Your task to perform on an android device: visit the assistant section in the google photos Image 0: 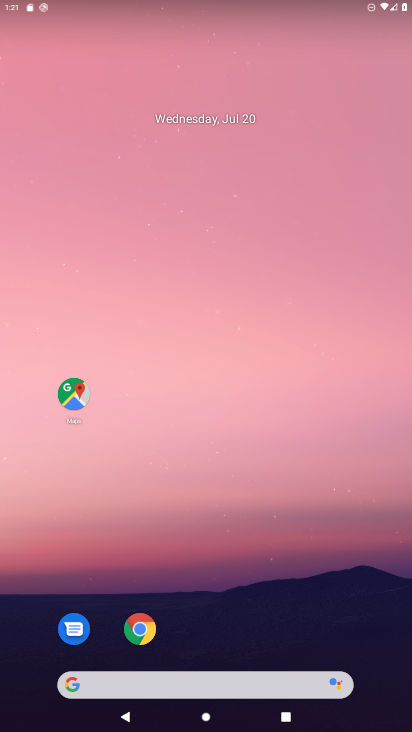
Step 0: drag from (203, 577) to (150, 189)
Your task to perform on an android device: visit the assistant section in the google photos Image 1: 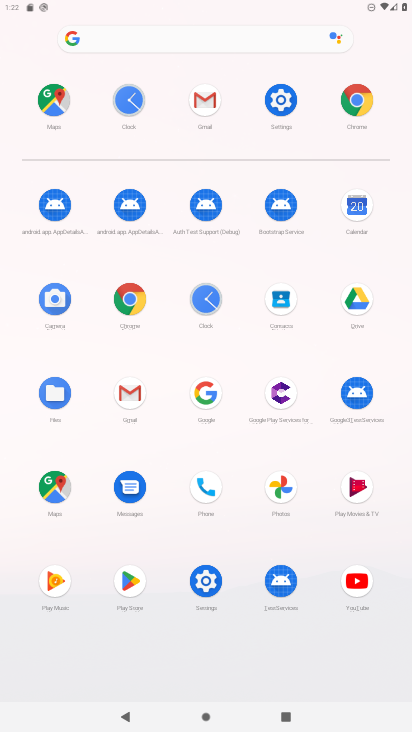
Step 1: click (282, 485)
Your task to perform on an android device: visit the assistant section in the google photos Image 2: 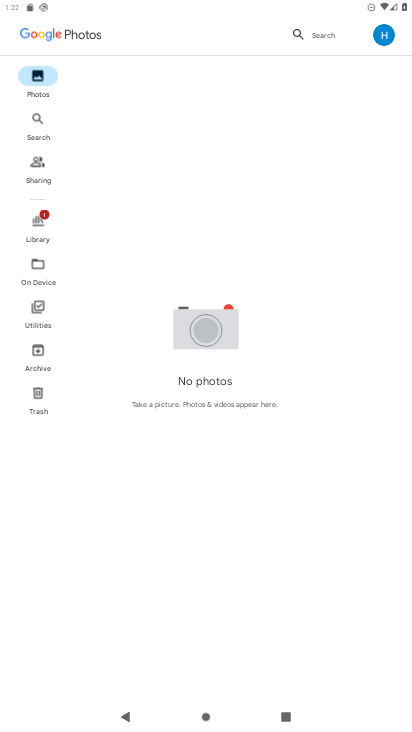
Step 2: task complete